Your task to perform on an android device: delete location history Image 0: 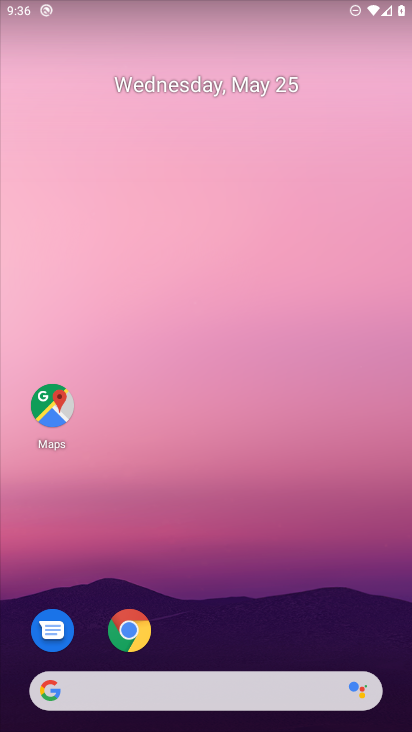
Step 0: drag from (209, 666) to (163, 255)
Your task to perform on an android device: delete location history Image 1: 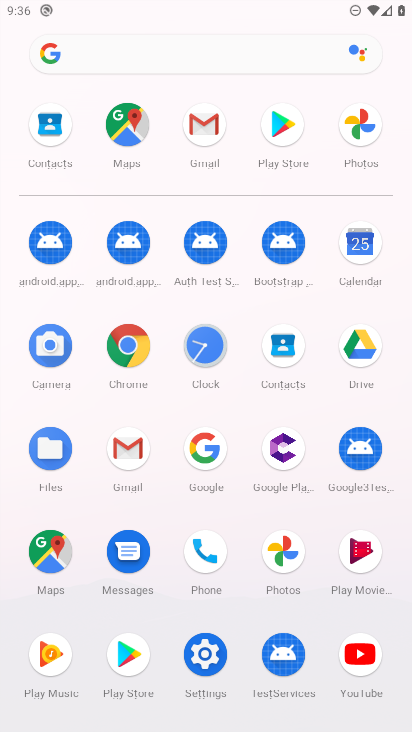
Step 1: click (199, 663)
Your task to perform on an android device: delete location history Image 2: 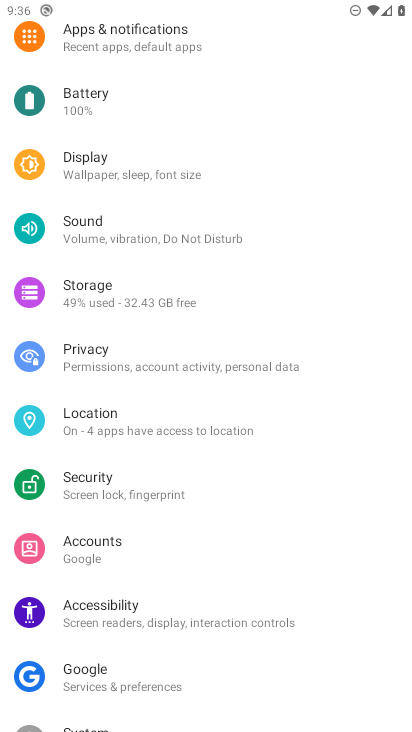
Step 2: click (115, 430)
Your task to perform on an android device: delete location history Image 3: 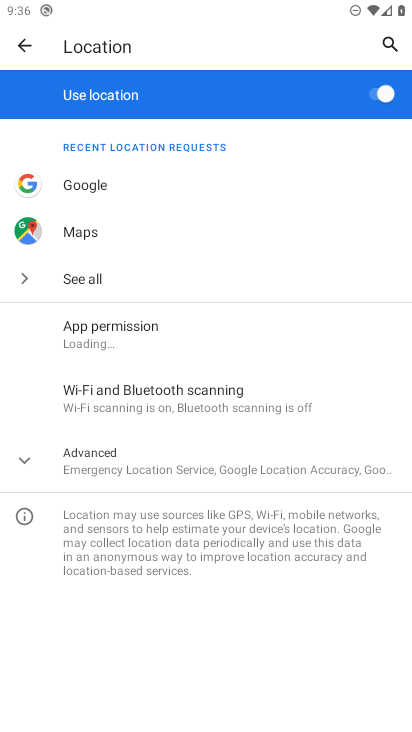
Step 3: click (118, 459)
Your task to perform on an android device: delete location history Image 4: 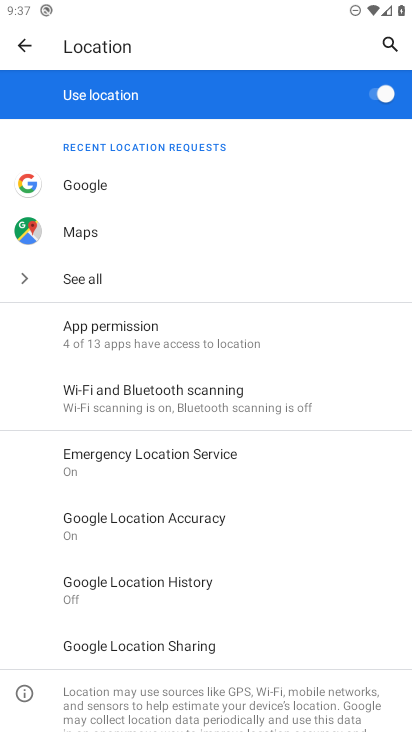
Step 4: click (174, 582)
Your task to perform on an android device: delete location history Image 5: 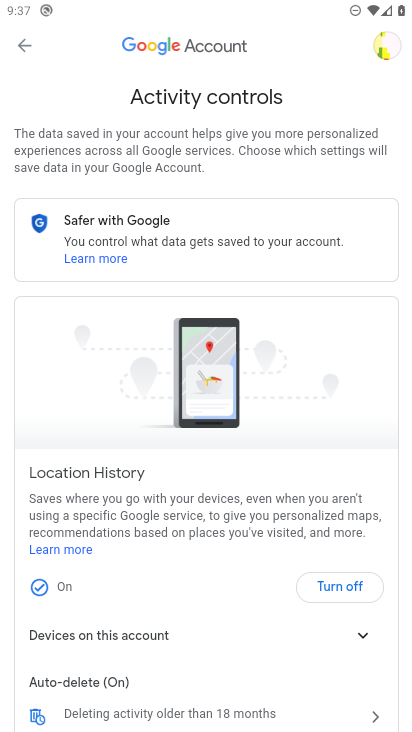
Step 5: click (184, 715)
Your task to perform on an android device: delete location history Image 6: 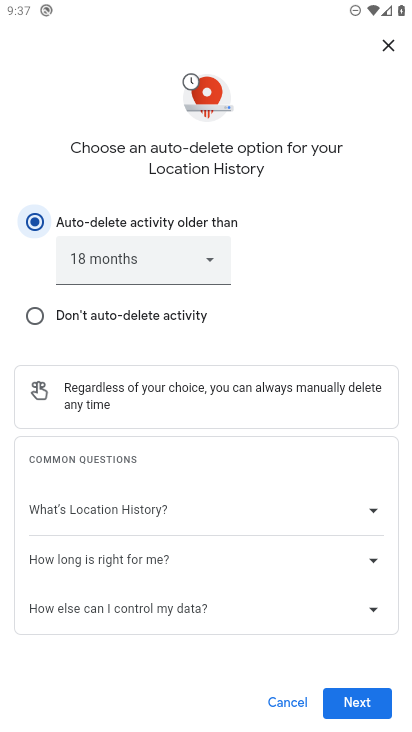
Step 6: click (342, 703)
Your task to perform on an android device: delete location history Image 7: 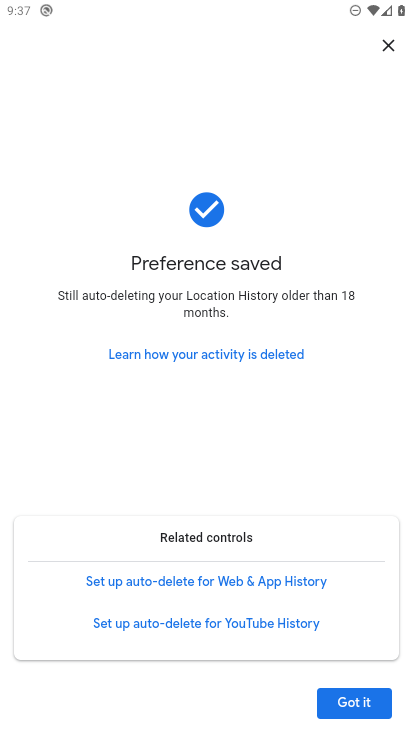
Step 7: click (342, 703)
Your task to perform on an android device: delete location history Image 8: 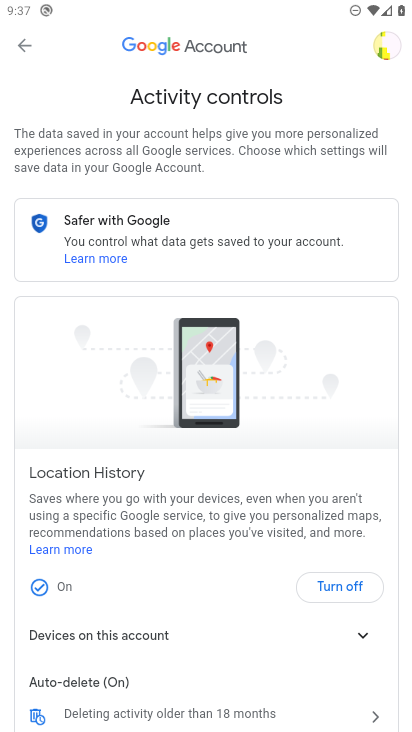
Step 8: task complete